Your task to perform on an android device: stop showing notifications on the lock screen Image 0: 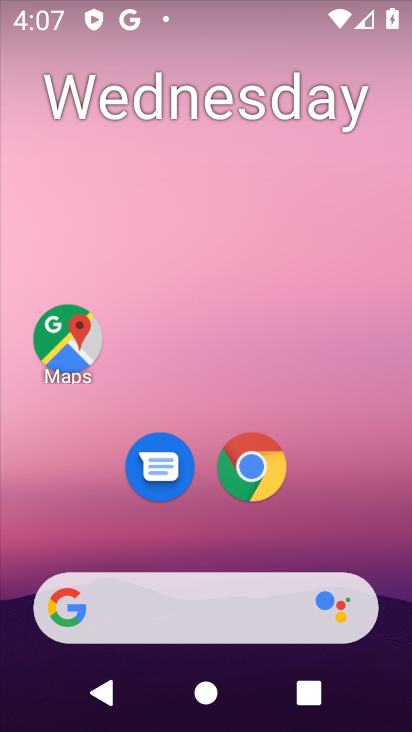
Step 0: drag from (202, 535) to (256, 5)
Your task to perform on an android device: stop showing notifications on the lock screen Image 1: 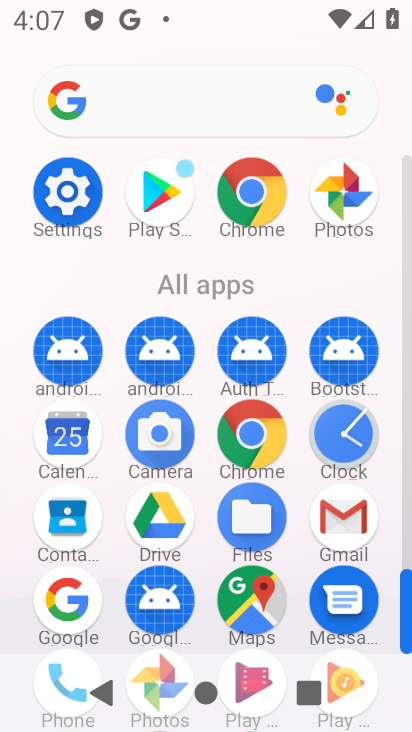
Step 1: click (75, 201)
Your task to perform on an android device: stop showing notifications on the lock screen Image 2: 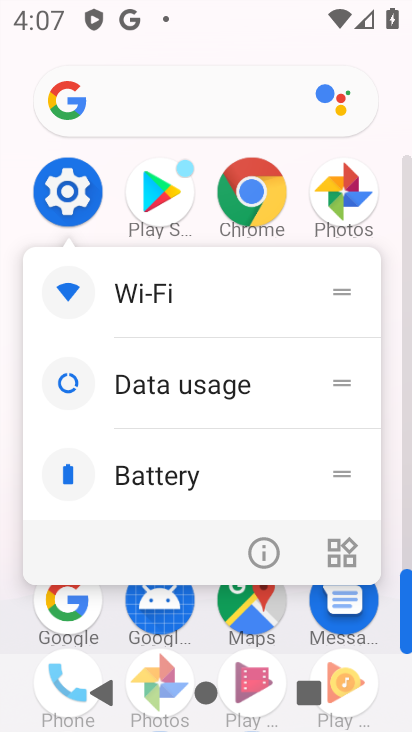
Step 2: click (80, 207)
Your task to perform on an android device: stop showing notifications on the lock screen Image 3: 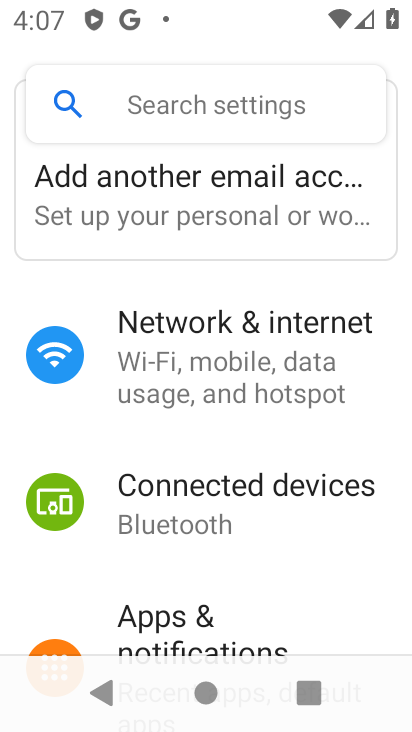
Step 3: drag from (236, 567) to (259, 245)
Your task to perform on an android device: stop showing notifications on the lock screen Image 4: 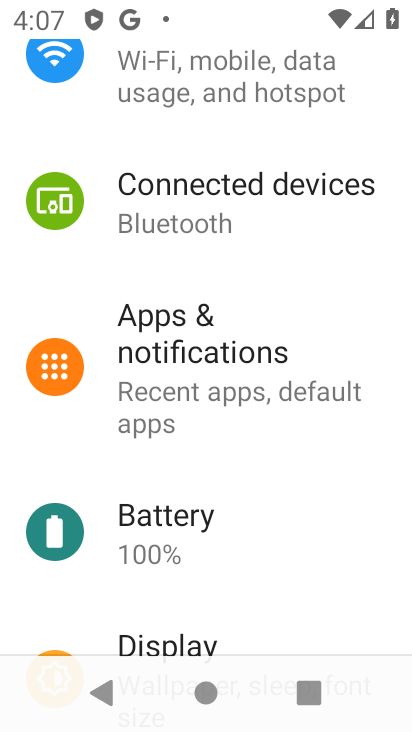
Step 4: click (189, 384)
Your task to perform on an android device: stop showing notifications on the lock screen Image 5: 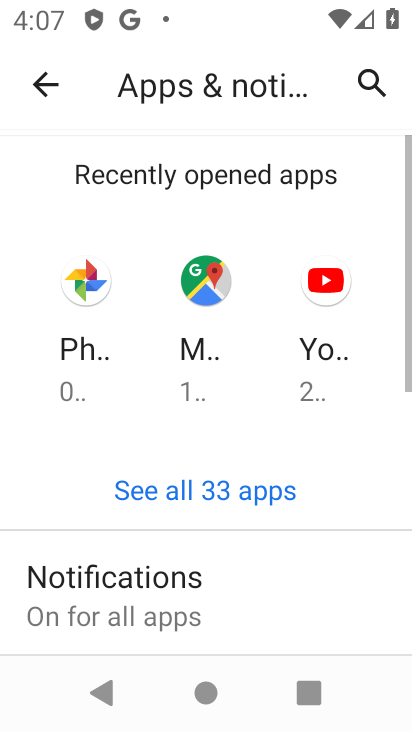
Step 5: drag from (216, 580) to (252, 313)
Your task to perform on an android device: stop showing notifications on the lock screen Image 6: 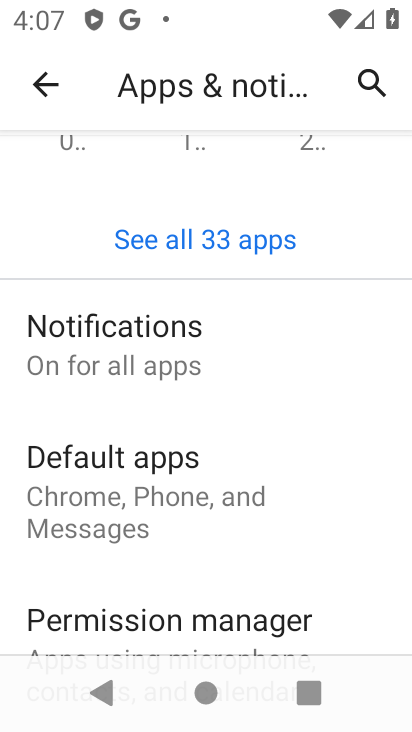
Step 6: click (156, 371)
Your task to perform on an android device: stop showing notifications on the lock screen Image 7: 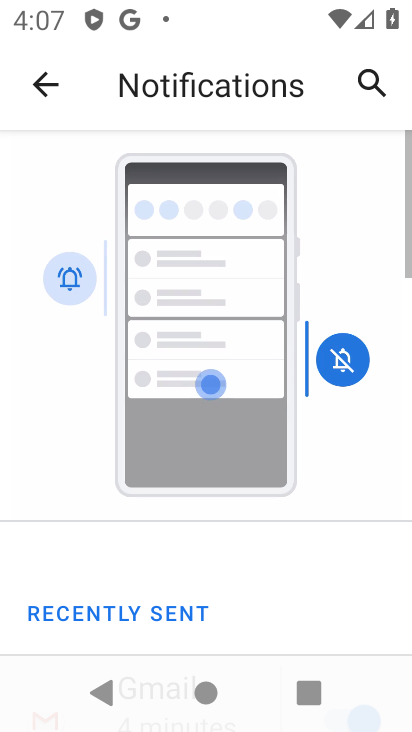
Step 7: drag from (154, 579) to (221, 174)
Your task to perform on an android device: stop showing notifications on the lock screen Image 8: 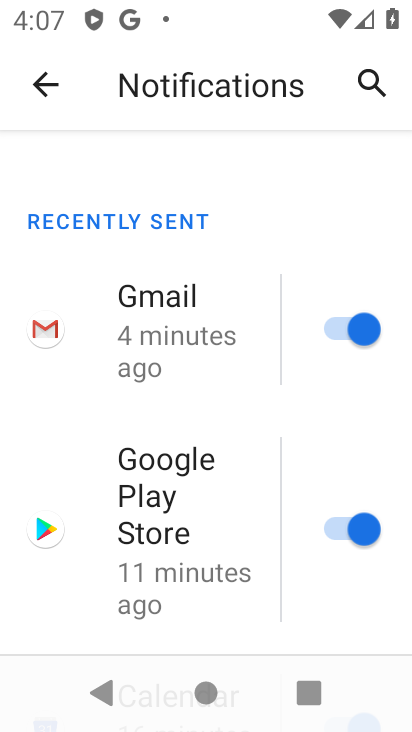
Step 8: drag from (193, 518) to (233, 251)
Your task to perform on an android device: stop showing notifications on the lock screen Image 9: 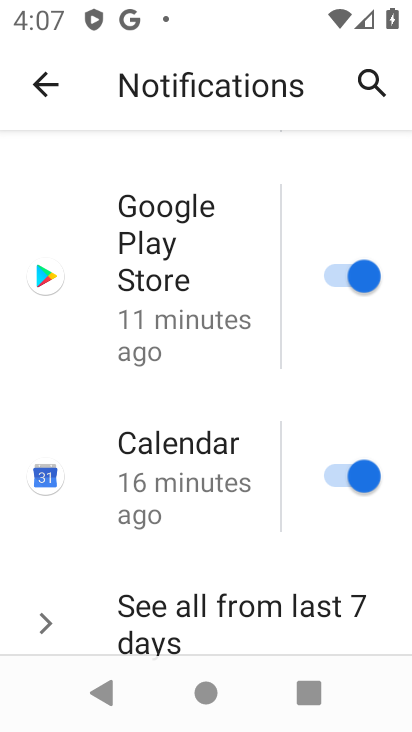
Step 9: drag from (183, 536) to (236, 149)
Your task to perform on an android device: stop showing notifications on the lock screen Image 10: 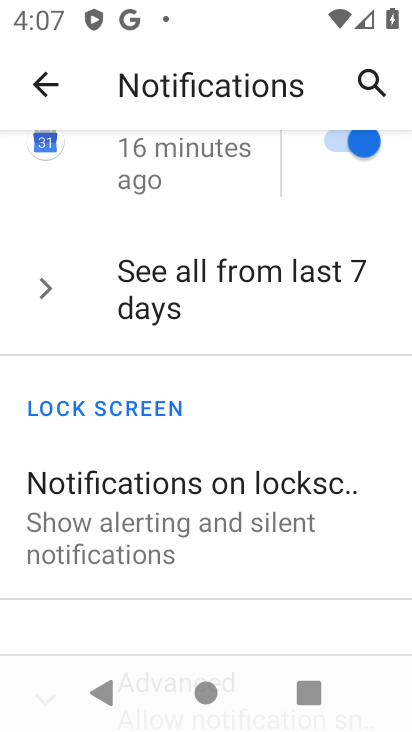
Step 10: click (187, 551)
Your task to perform on an android device: stop showing notifications on the lock screen Image 11: 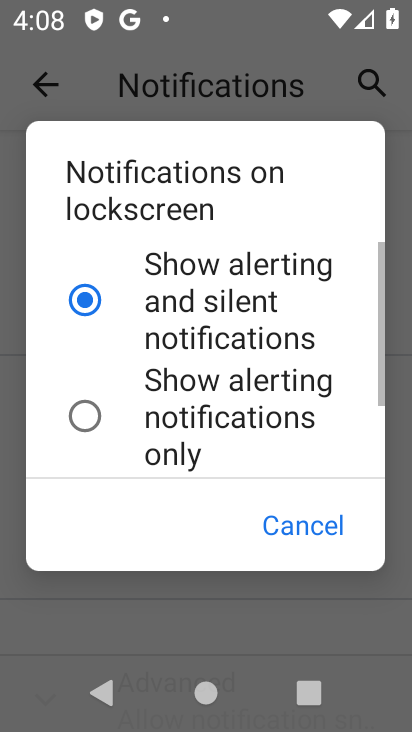
Step 11: drag from (153, 415) to (200, 175)
Your task to perform on an android device: stop showing notifications on the lock screen Image 12: 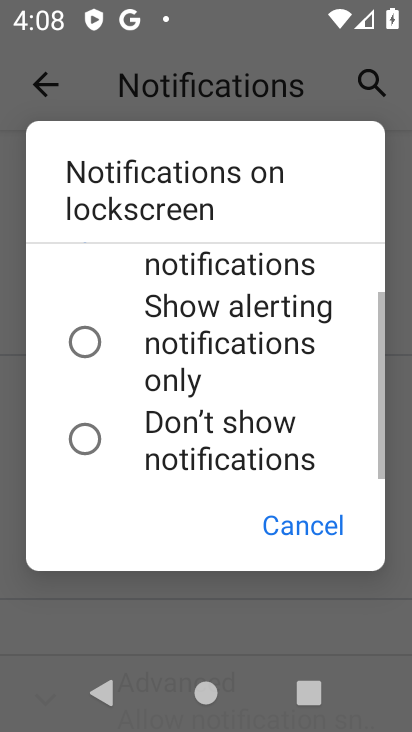
Step 12: click (99, 448)
Your task to perform on an android device: stop showing notifications on the lock screen Image 13: 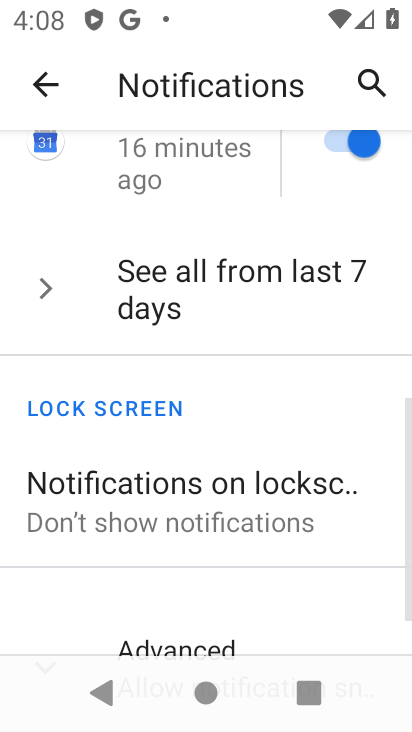
Step 13: task complete